Your task to perform on an android device: change notifications settings Image 0: 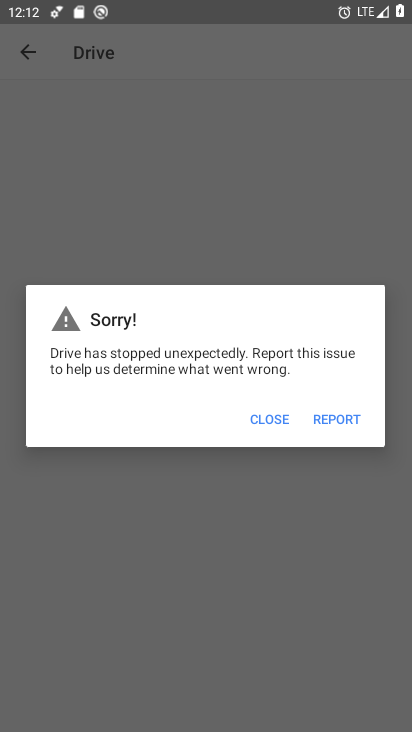
Step 0: press home button
Your task to perform on an android device: change notifications settings Image 1: 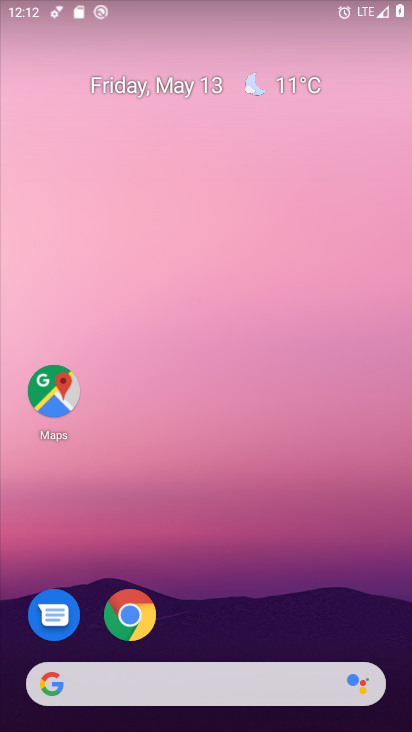
Step 1: drag from (211, 575) to (281, 33)
Your task to perform on an android device: change notifications settings Image 2: 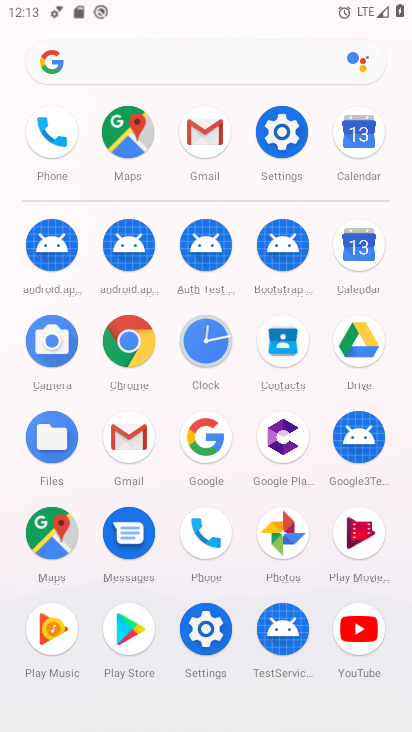
Step 2: click (274, 127)
Your task to perform on an android device: change notifications settings Image 3: 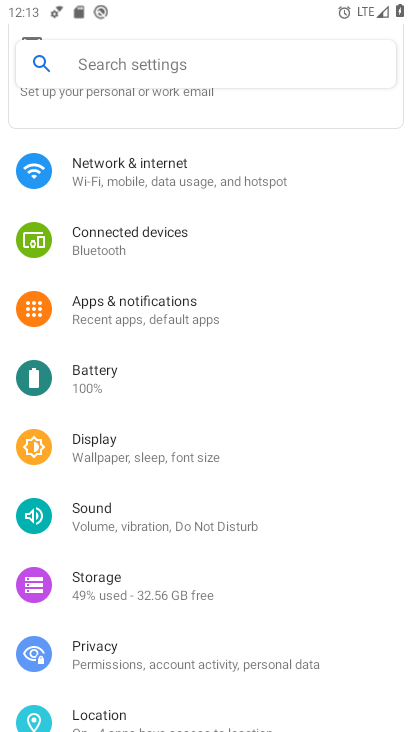
Step 3: click (212, 322)
Your task to perform on an android device: change notifications settings Image 4: 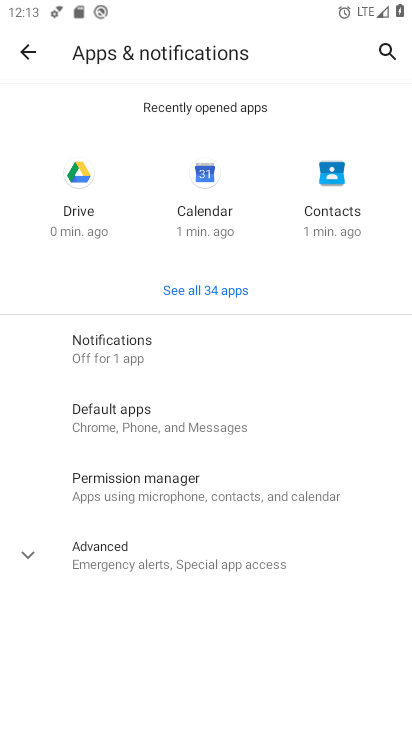
Step 4: click (211, 340)
Your task to perform on an android device: change notifications settings Image 5: 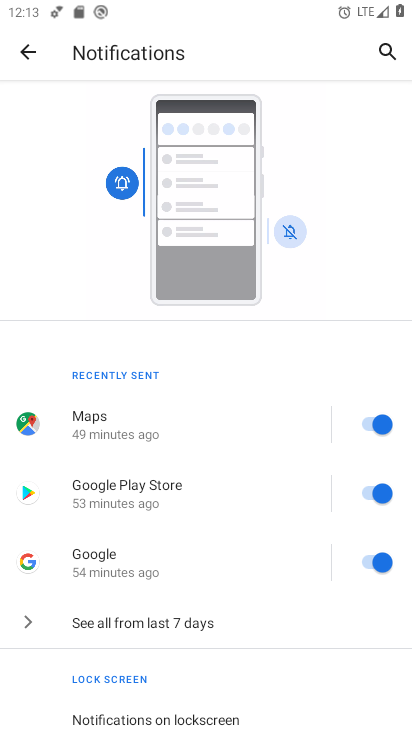
Step 5: click (199, 623)
Your task to perform on an android device: change notifications settings Image 6: 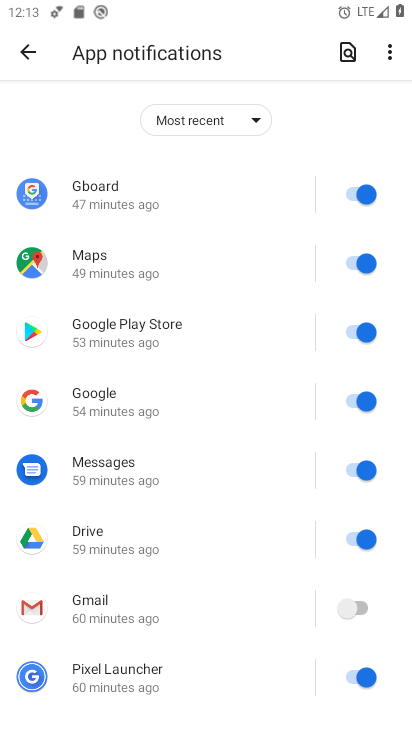
Step 6: click (356, 192)
Your task to perform on an android device: change notifications settings Image 7: 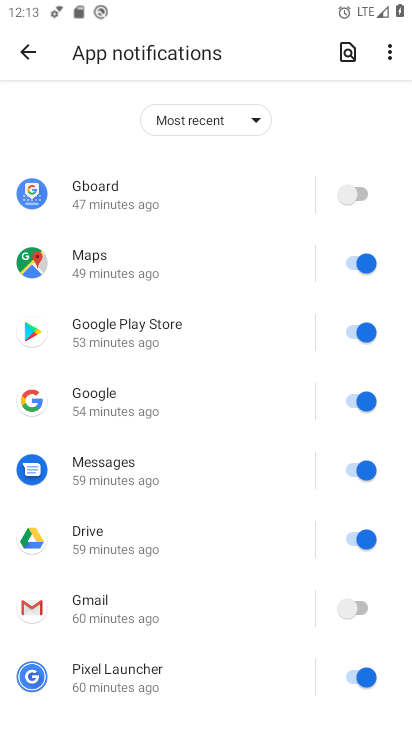
Step 7: click (357, 262)
Your task to perform on an android device: change notifications settings Image 8: 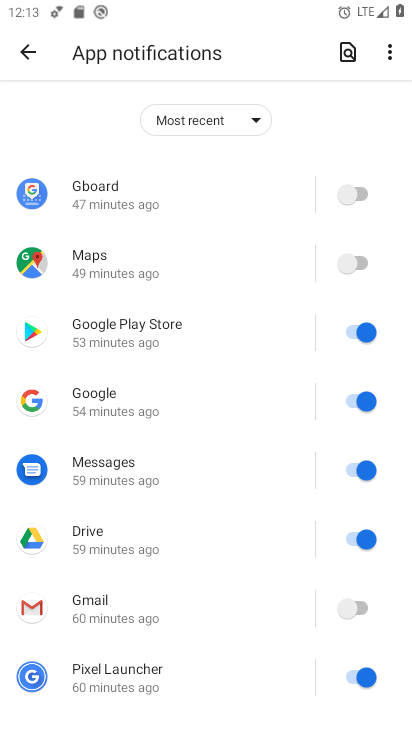
Step 8: click (357, 328)
Your task to perform on an android device: change notifications settings Image 9: 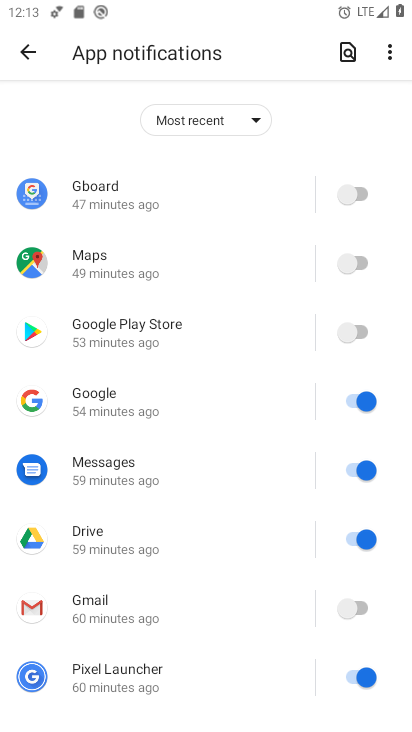
Step 9: click (354, 389)
Your task to perform on an android device: change notifications settings Image 10: 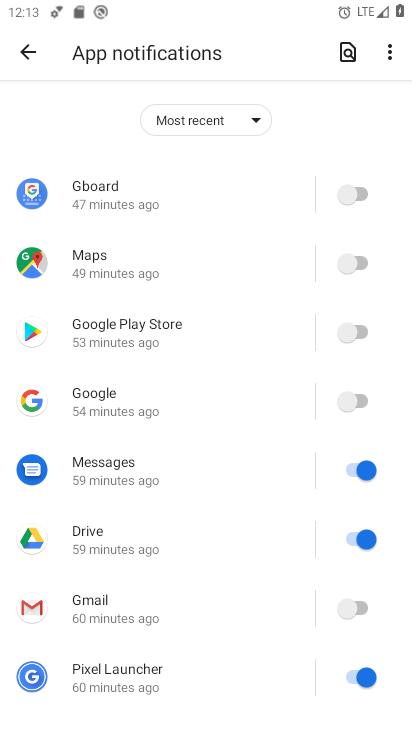
Step 10: click (357, 470)
Your task to perform on an android device: change notifications settings Image 11: 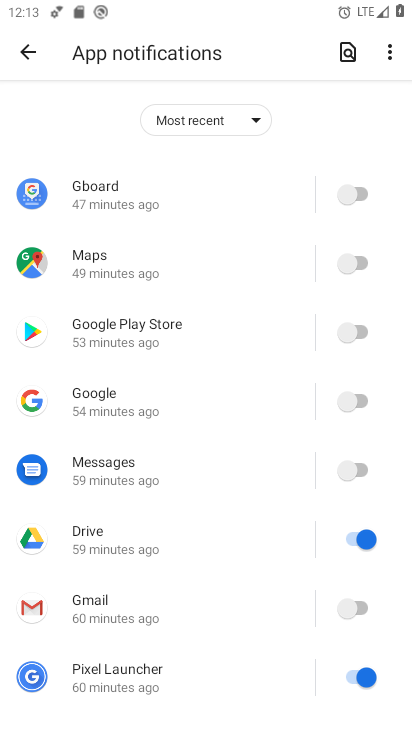
Step 11: click (357, 534)
Your task to perform on an android device: change notifications settings Image 12: 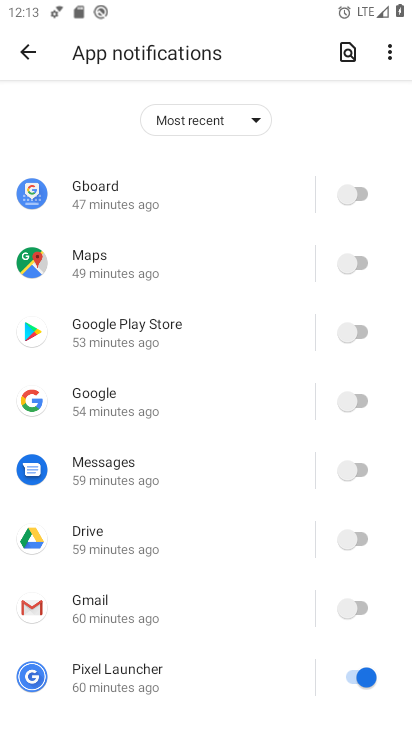
Step 12: click (361, 611)
Your task to perform on an android device: change notifications settings Image 13: 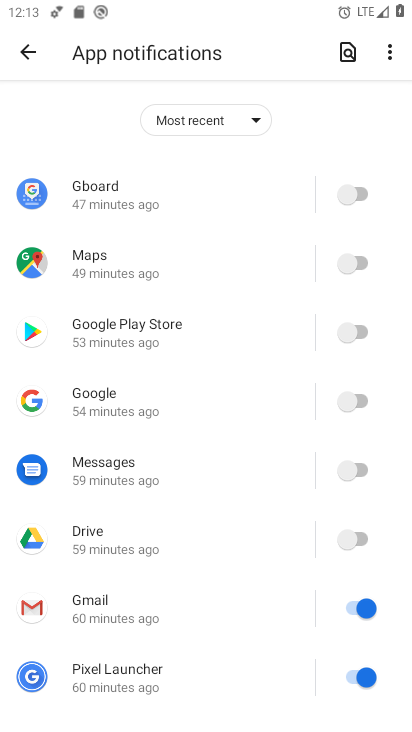
Step 13: click (365, 669)
Your task to perform on an android device: change notifications settings Image 14: 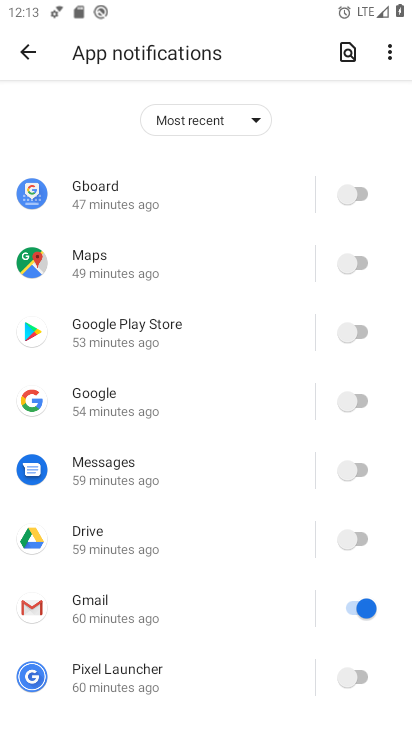
Step 14: task complete